Your task to perform on an android device: add a label to a message in the gmail app Image 0: 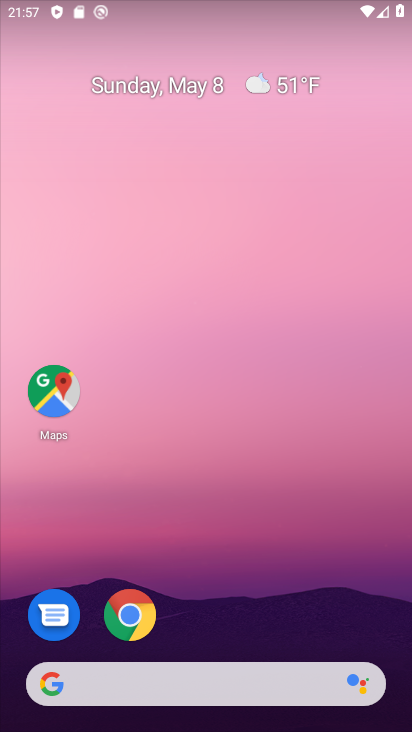
Step 0: drag from (315, 586) to (225, 101)
Your task to perform on an android device: add a label to a message in the gmail app Image 1: 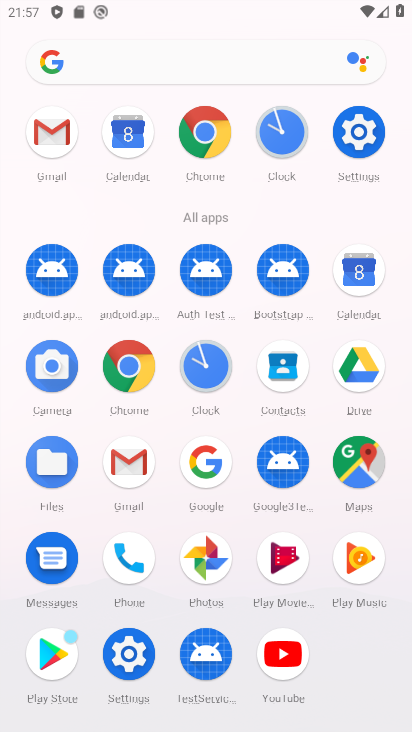
Step 1: click (36, 129)
Your task to perform on an android device: add a label to a message in the gmail app Image 2: 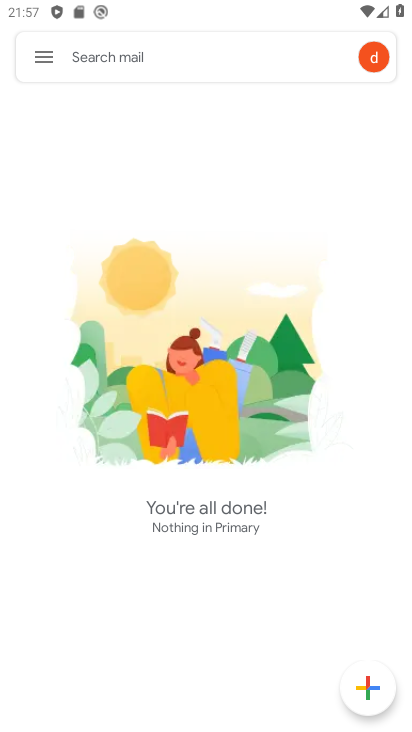
Step 2: click (46, 55)
Your task to perform on an android device: add a label to a message in the gmail app Image 3: 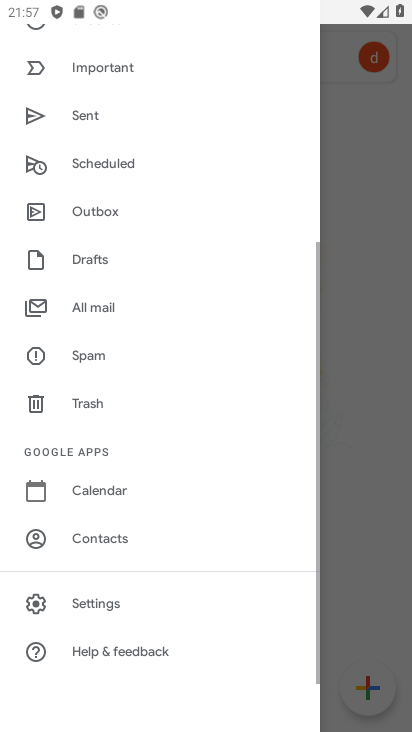
Step 3: drag from (148, 569) to (232, 130)
Your task to perform on an android device: add a label to a message in the gmail app Image 4: 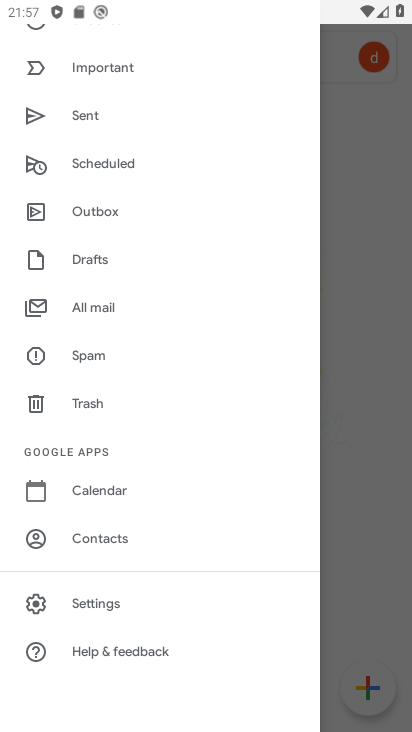
Step 4: click (83, 302)
Your task to perform on an android device: add a label to a message in the gmail app Image 5: 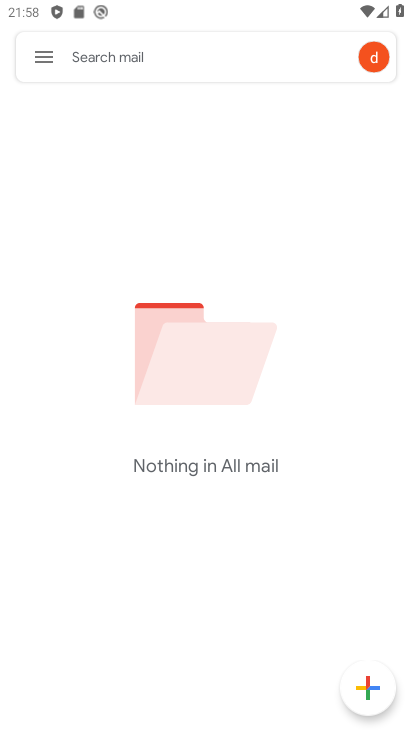
Step 5: task complete